Your task to perform on an android device: open a new tab in the chrome app Image 0: 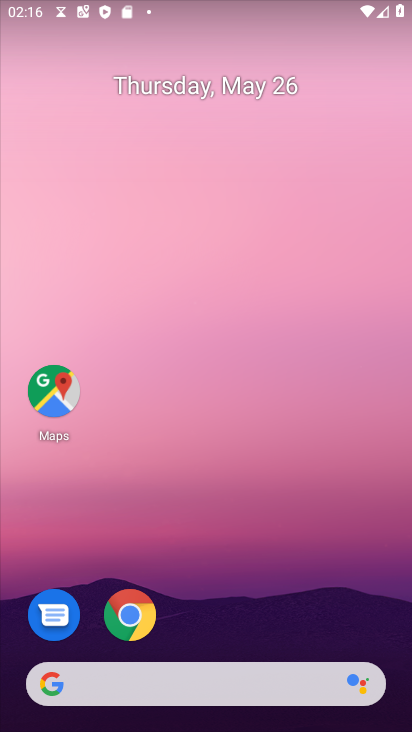
Step 0: click (126, 609)
Your task to perform on an android device: open a new tab in the chrome app Image 1: 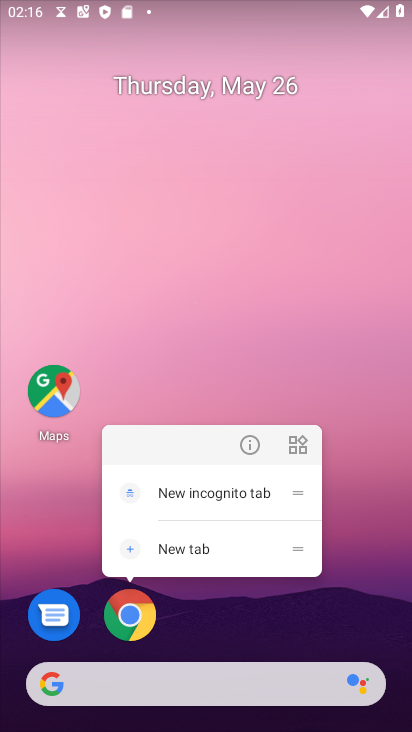
Step 1: click (126, 610)
Your task to perform on an android device: open a new tab in the chrome app Image 2: 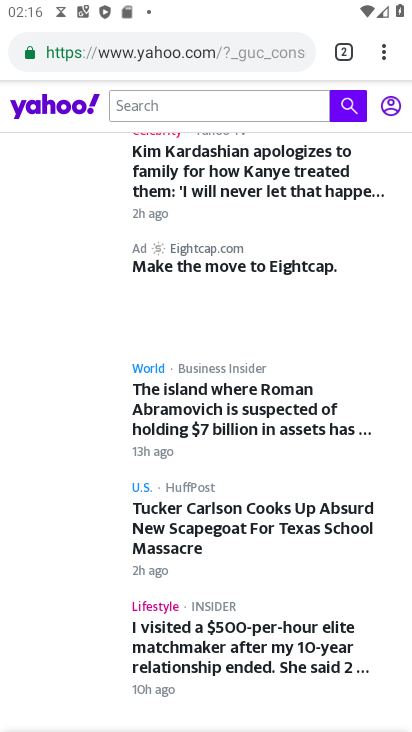
Step 2: click (344, 45)
Your task to perform on an android device: open a new tab in the chrome app Image 3: 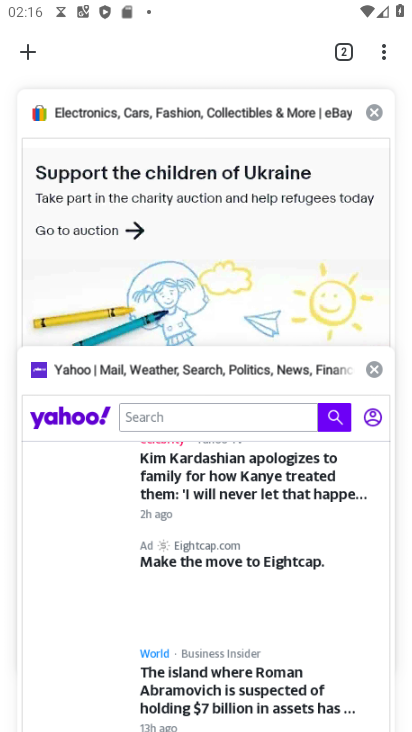
Step 3: click (31, 44)
Your task to perform on an android device: open a new tab in the chrome app Image 4: 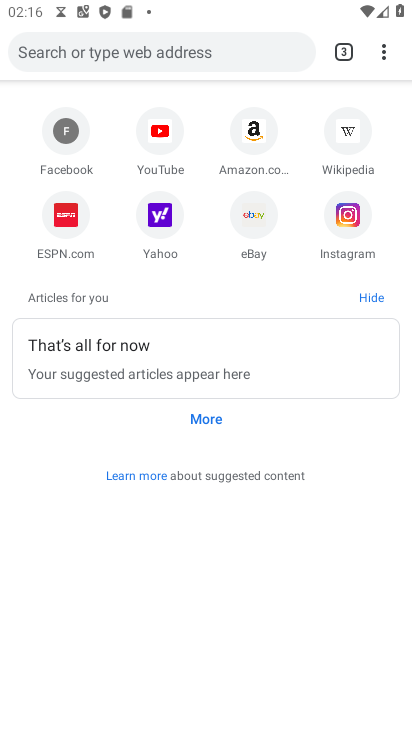
Step 4: task complete